Your task to perform on an android device: When is my next meeting? Image 0: 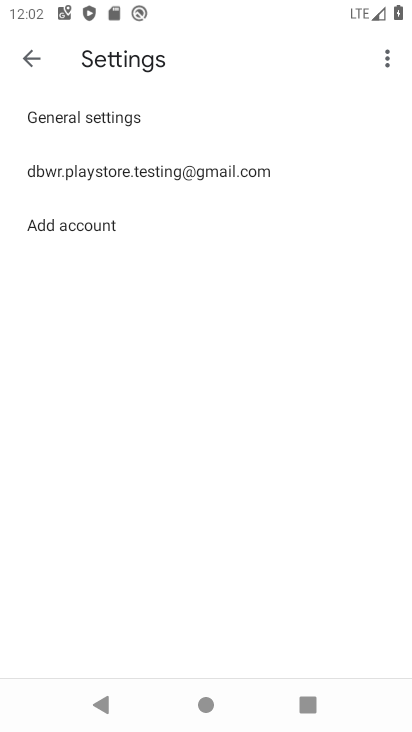
Step 0: press home button
Your task to perform on an android device: When is my next meeting? Image 1: 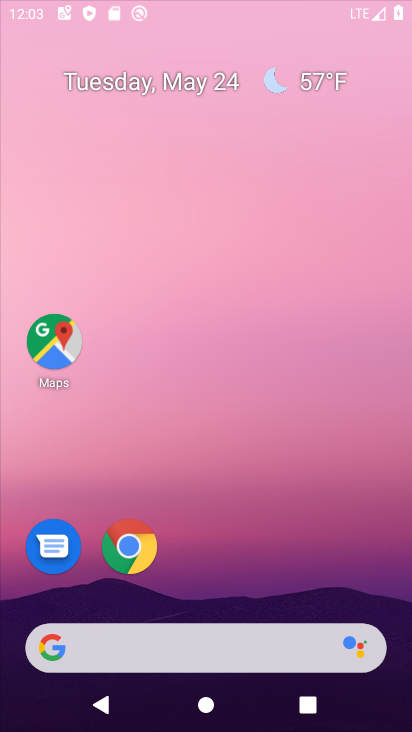
Step 1: drag from (199, 637) to (252, 39)
Your task to perform on an android device: When is my next meeting? Image 2: 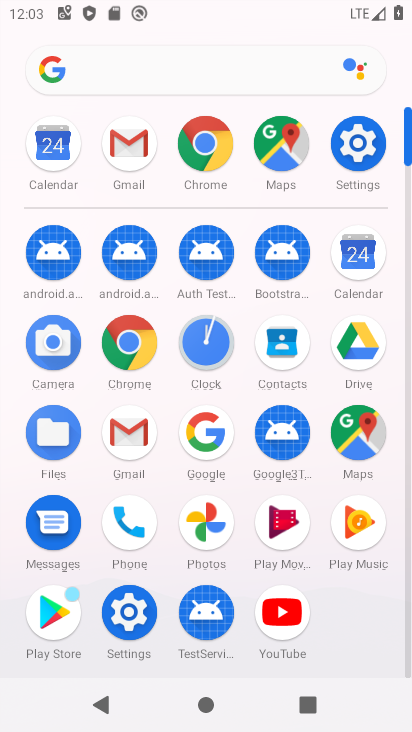
Step 2: click (358, 238)
Your task to perform on an android device: When is my next meeting? Image 3: 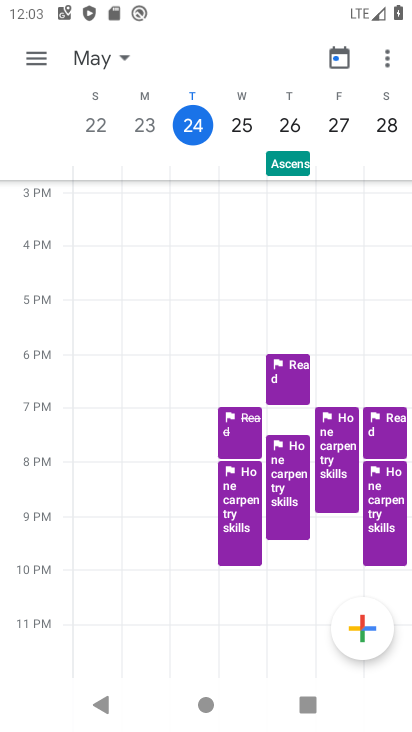
Step 3: task complete